Your task to perform on an android device: check the backup settings in the google photos Image 0: 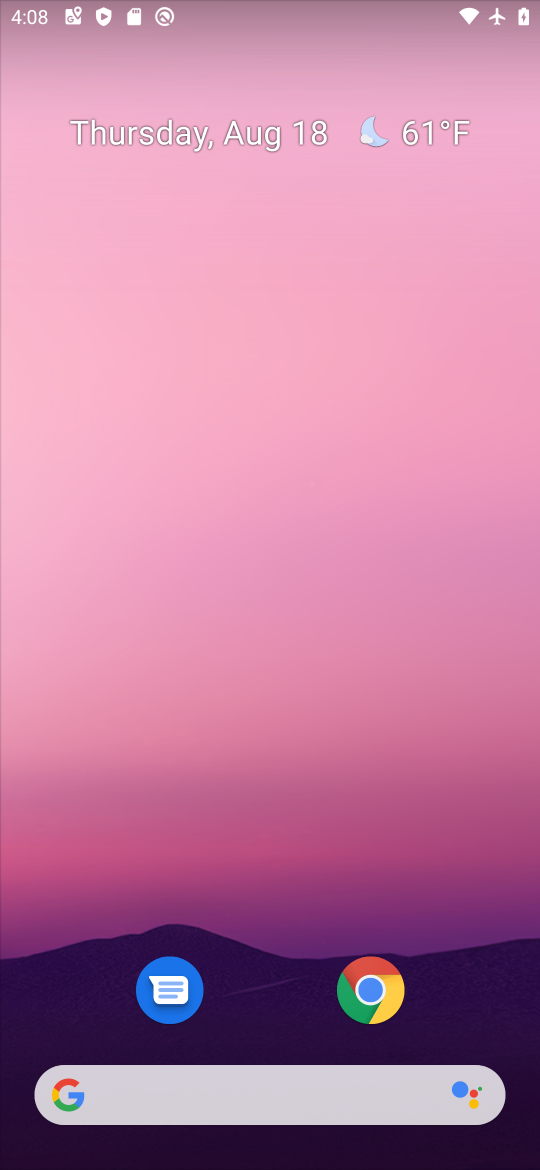
Step 0: drag from (431, 851) to (424, 82)
Your task to perform on an android device: check the backup settings in the google photos Image 1: 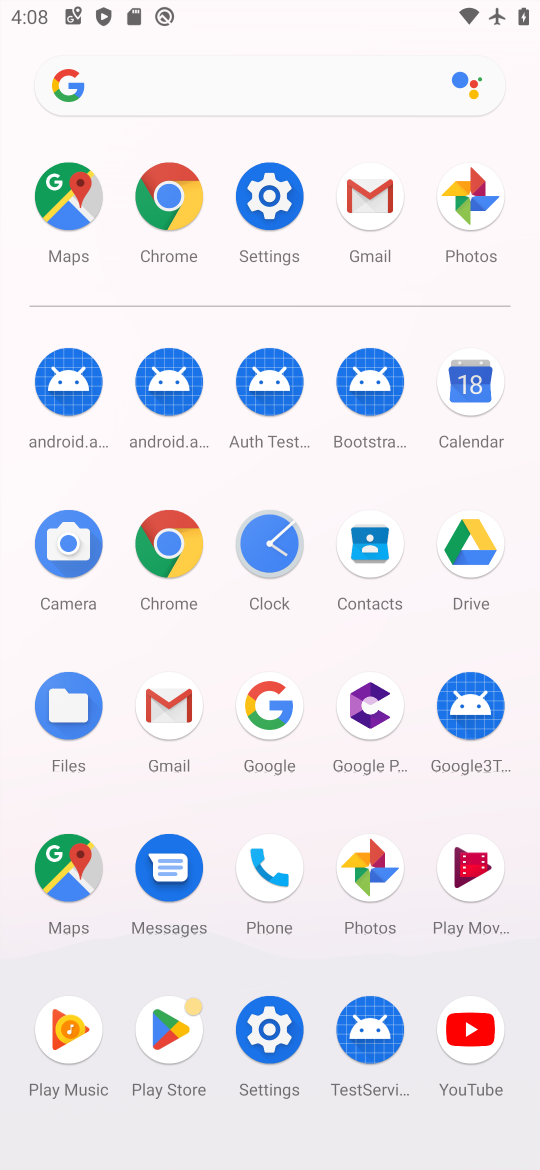
Step 1: click (373, 869)
Your task to perform on an android device: check the backup settings in the google photos Image 2: 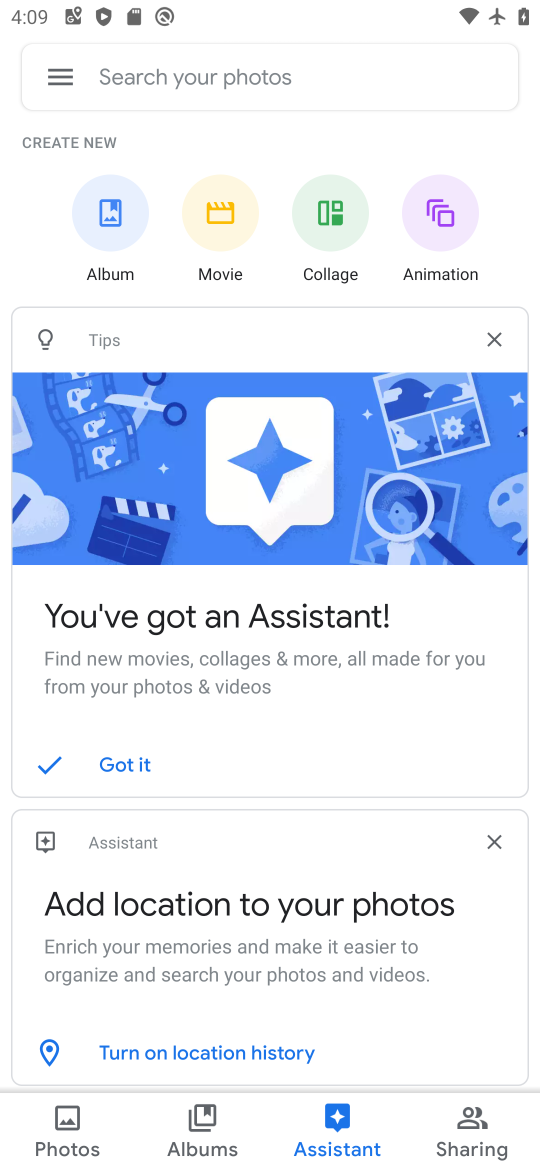
Step 2: click (57, 63)
Your task to perform on an android device: check the backup settings in the google photos Image 3: 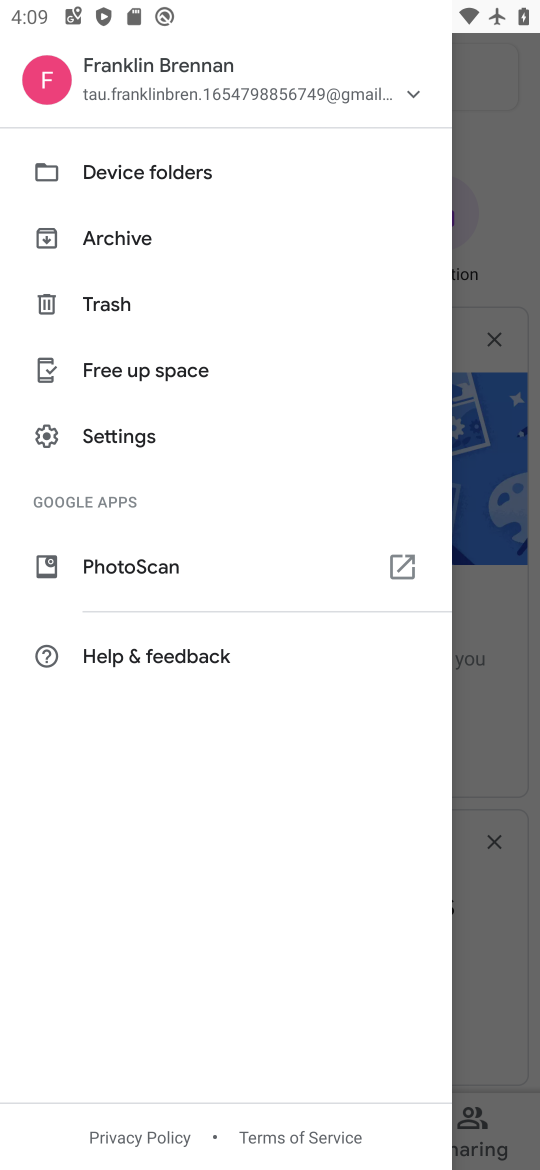
Step 3: click (127, 437)
Your task to perform on an android device: check the backup settings in the google photos Image 4: 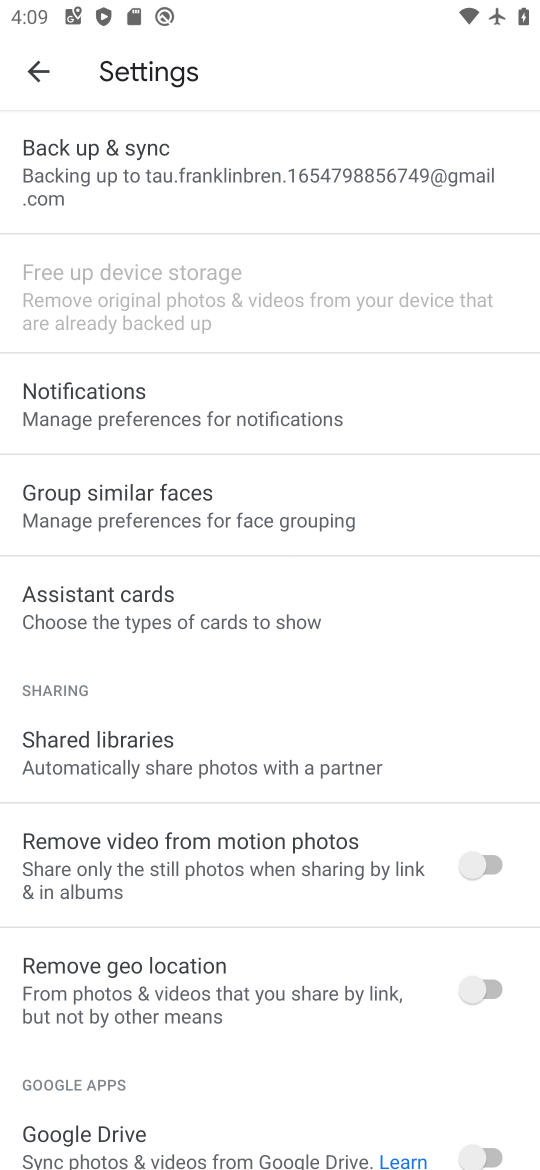
Step 4: click (170, 158)
Your task to perform on an android device: check the backup settings in the google photos Image 5: 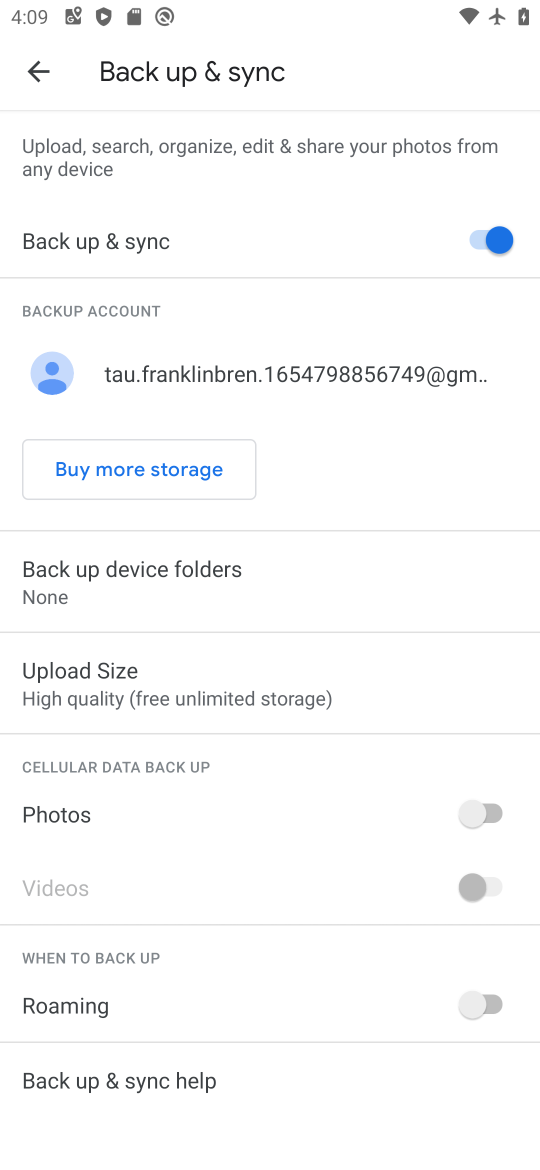
Step 5: task complete